Your task to perform on an android device: What's the weather going to be tomorrow? Image 0: 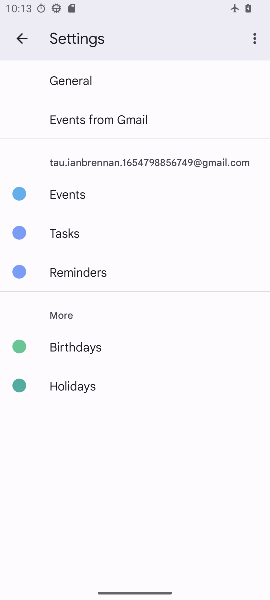
Step 0: press home button
Your task to perform on an android device: What's the weather going to be tomorrow? Image 1: 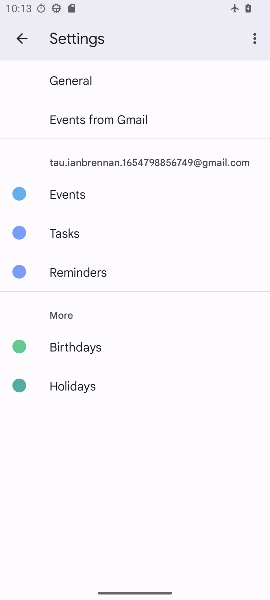
Step 1: press home button
Your task to perform on an android device: What's the weather going to be tomorrow? Image 2: 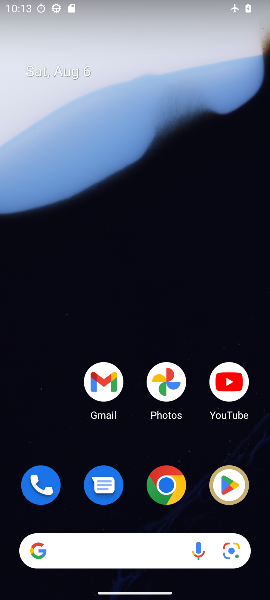
Step 2: drag from (214, 448) to (170, 21)
Your task to perform on an android device: What's the weather going to be tomorrow? Image 3: 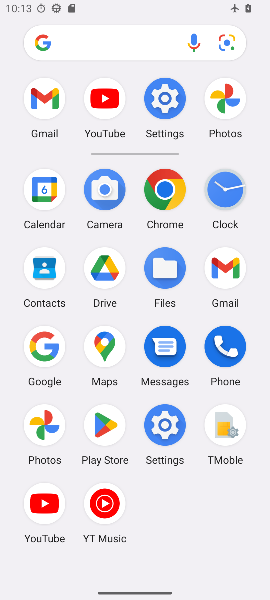
Step 3: click (159, 181)
Your task to perform on an android device: What's the weather going to be tomorrow? Image 4: 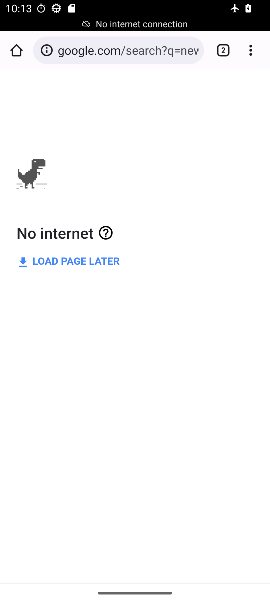
Step 4: click (150, 46)
Your task to perform on an android device: What's the weather going to be tomorrow? Image 5: 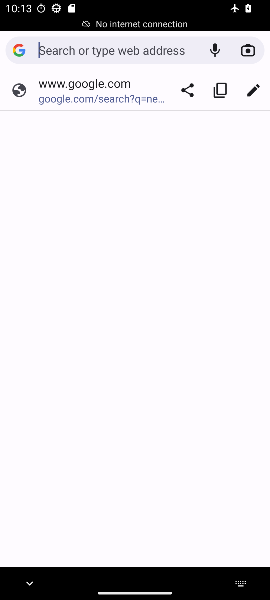
Step 5: type "news"
Your task to perform on an android device: What's the weather going to be tomorrow? Image 6: 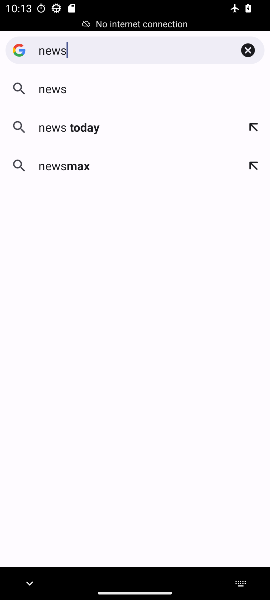
Step 6: click (74, 95)
Your task to perform on an android device: What's the weather going to be tomorrow? Image 7: 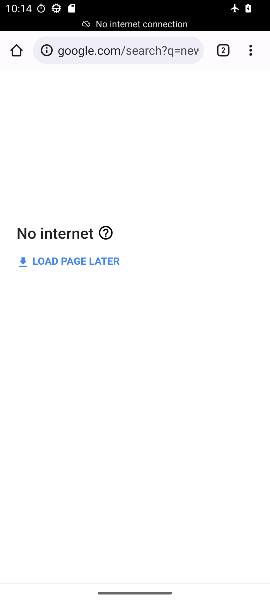
Step 7: task complete